Your task to perform on an android device: What's the weather going to be tomorrow? Image 0: 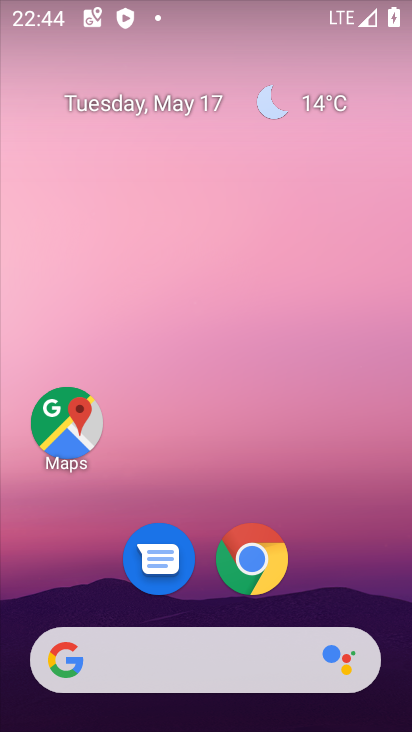
Step 0: click (321, 99)
Your task to perform on an android device: What's the weather going to be tomorrow? Image 1: 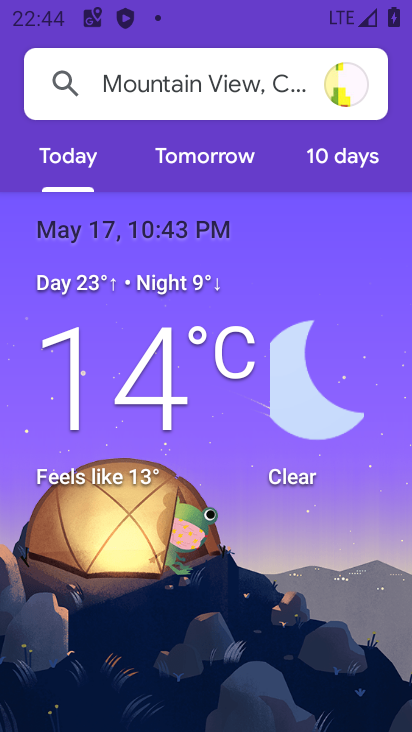
Step 1: click (180, 163)
Your task to perform on an android device: What's the weather going to be tomorrow? Image 2: 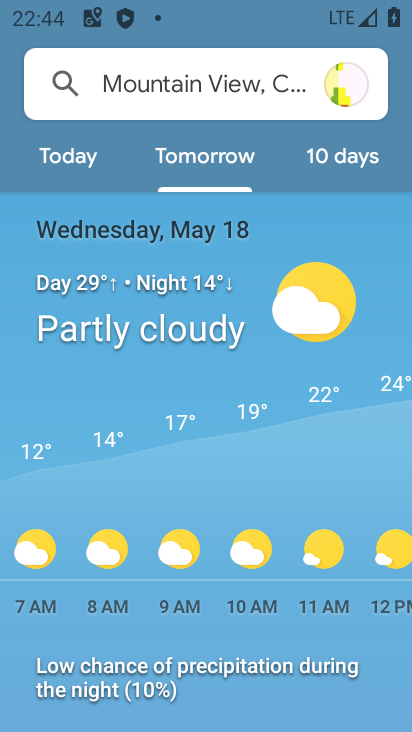
Step 2: task complete